Your task to perform on an android device: clear history in the chrome app Image 0: 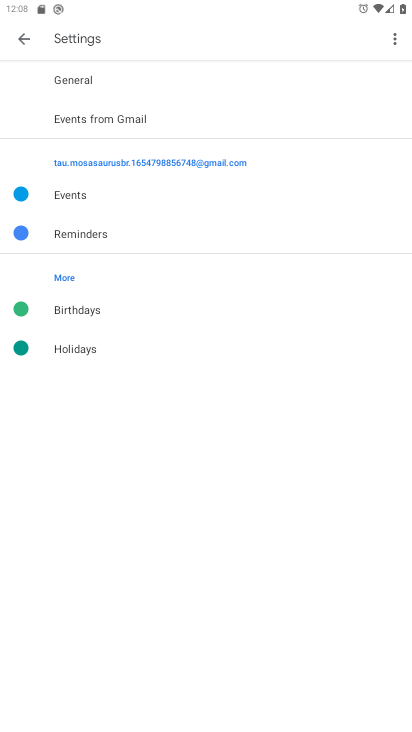
Step 0: click (22, 33)
Your task to perform on an android device: clear history in the chrome app Image 1: 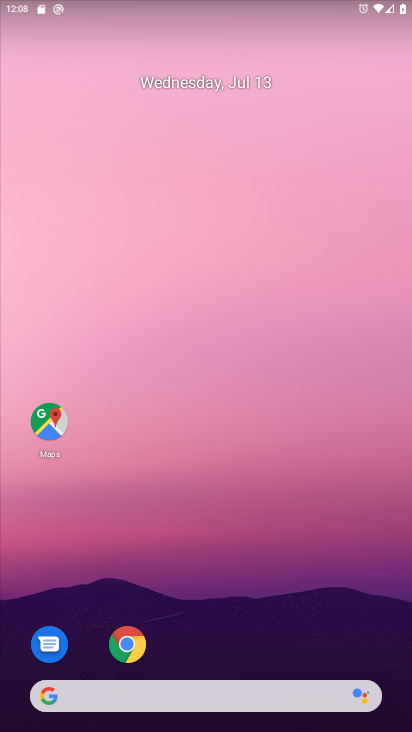
Step 1: drag from (271, 566) to (163, 89)
Your task to perform on an android device: clear history in the chrome app Image 2: 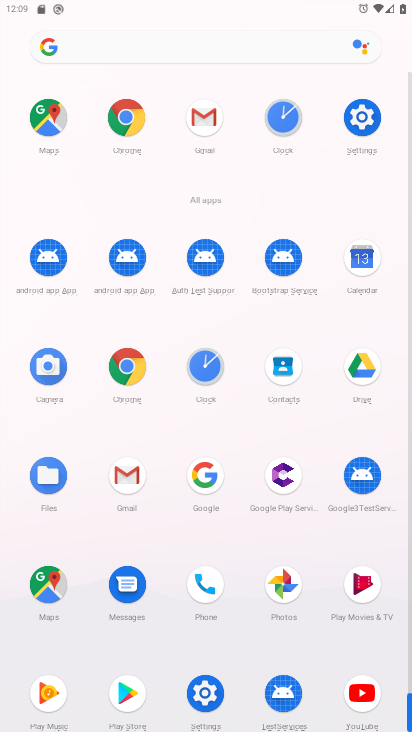
Step 2: click (120, 361)
Your task to perform on an android device: clear history in the chrome app Image 3: 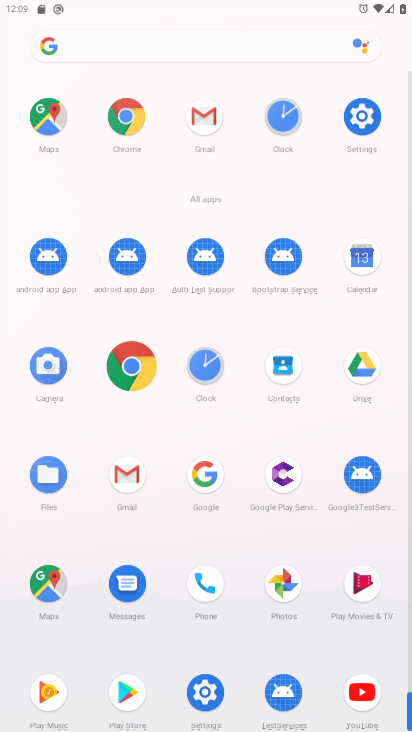
Step 3: click (121, 360)
Your task to perform on an android device: clear history in the chrome app Image 4: 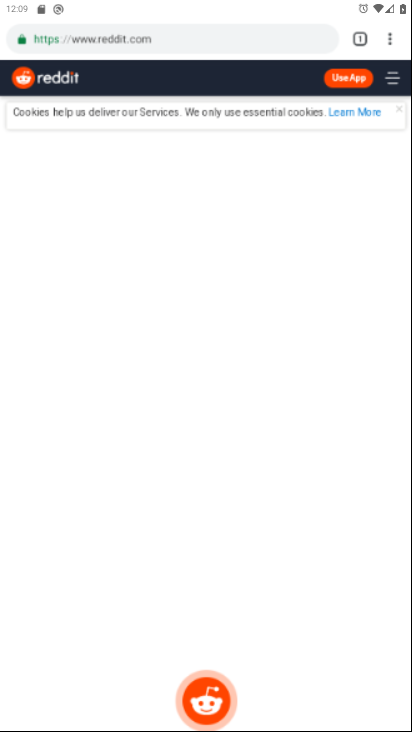
Step 4: click (124, 364)
Your task to perform on an android device: clear history in the chrome app Image 5: 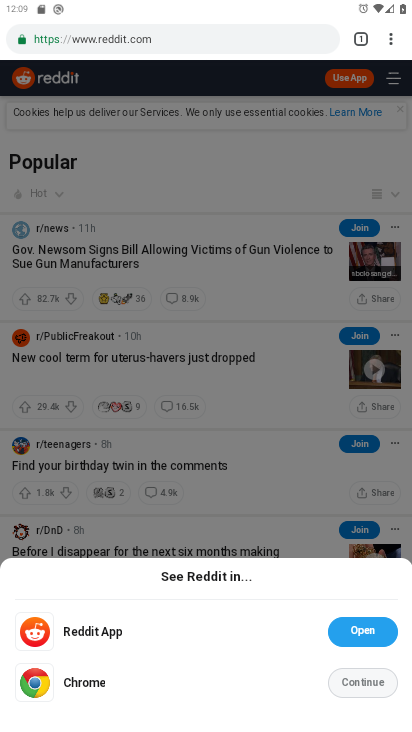
Step 5: drag from (386, 39) to (243, 252)
Your task to perform on an android device: clear history in the chrome app Image 6: 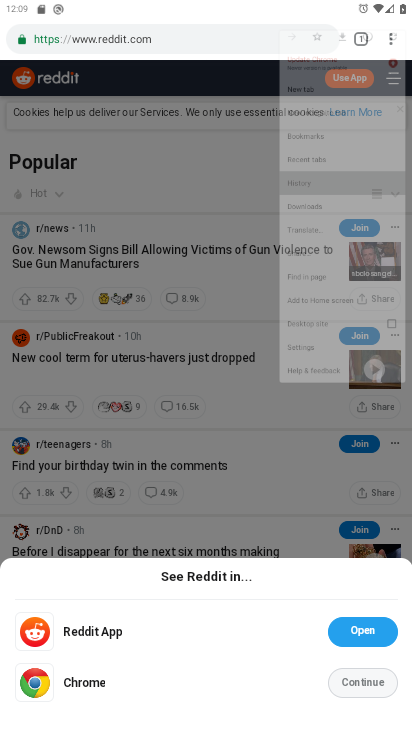
Step 6: click (245, 253)
Your task to perform on an android device: clear history in the chrome app Image 7: 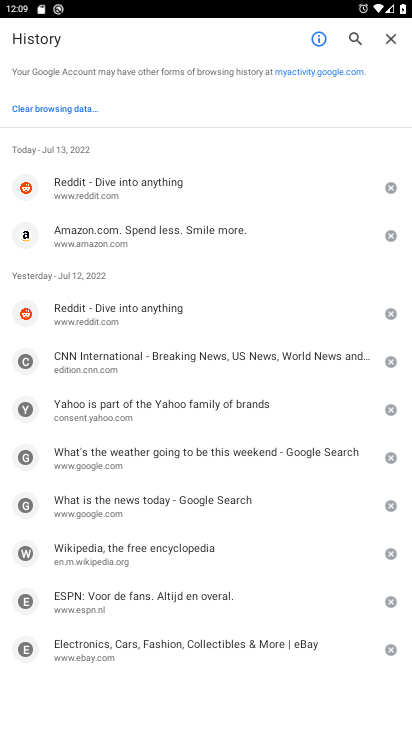
Step 7: click (51, 112)
Your task to perform on an android device: clear history in the chrome app Image 8: 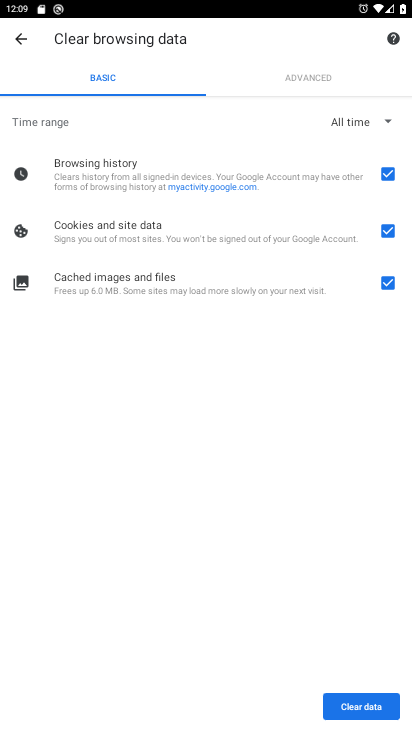
Step 8: click (372, 705)
Your task to perform on an android device: clear history in the chrome app Image 9: 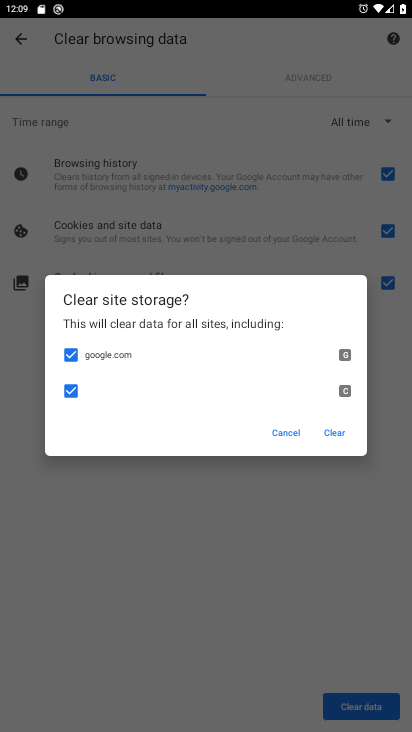
Step 9: click (327, 428)
Your task to perform on an android device: clear history in the chrome app Image 10: 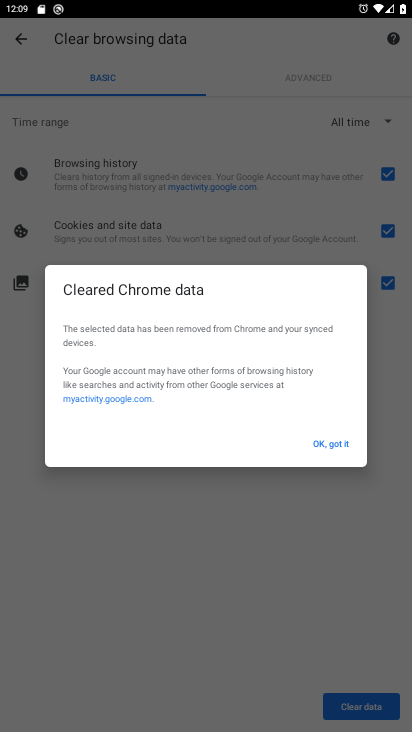
Step 10: task complete